Your task to perform on an android device: turn off wifi Image 0: 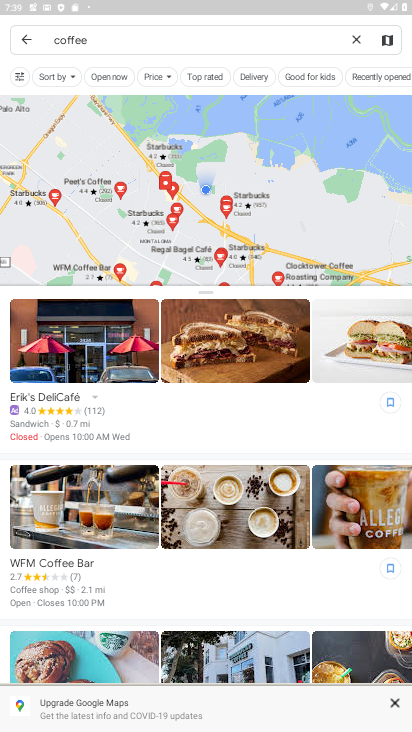
Step 0: press home button
Your task to perform on an android device: turn off wifi Image 1: 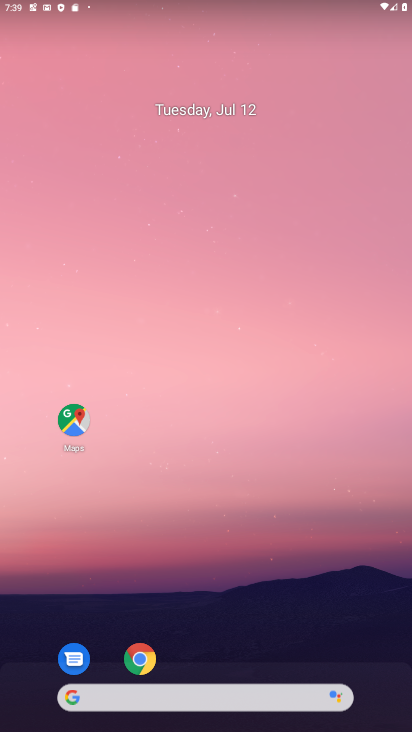
Step 1: drag from (240, 673) to (283, 161)
Your task to perform on an android device: turn off wifi Image 2: 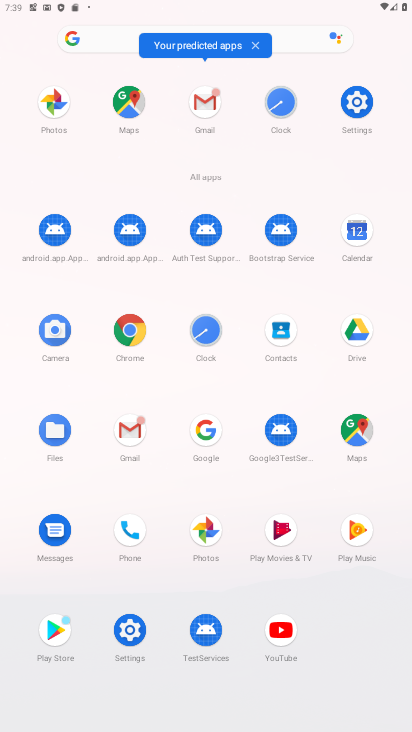
Step 2: click (358, 91)
Your task to perform on an android device: turn off wifi Image 3: 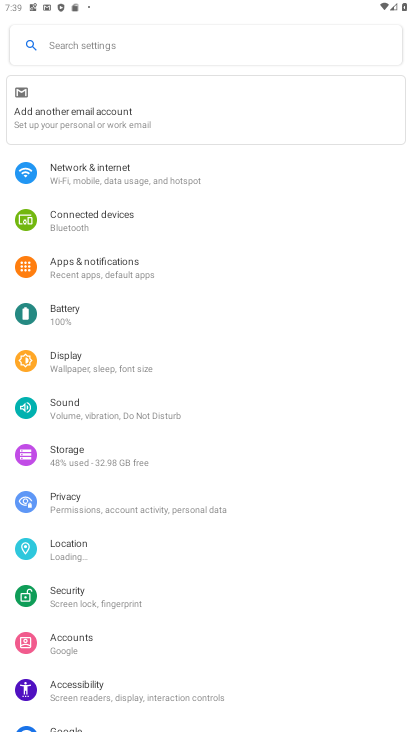
Step 3: click (107, 167)
Your task to perform on an android device: turn off wifi Image 4: 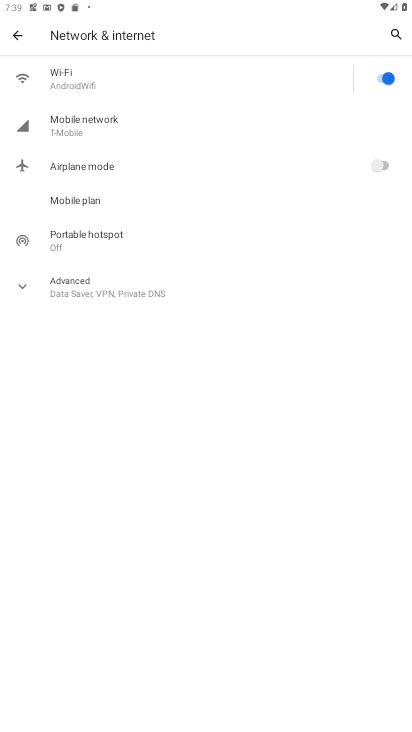
Step 4: click (387, 83)
Your task to perform on an android device: turn off wifi Image 5: 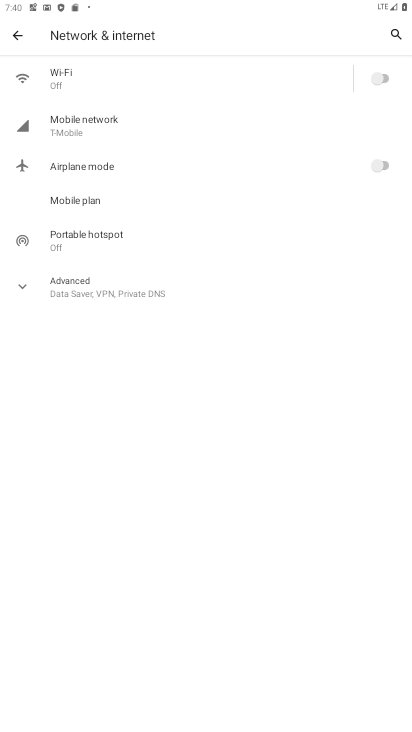
Step 5: task complete